Your task to perform on an android device: What's the weather going to be this weekend? Image 0: 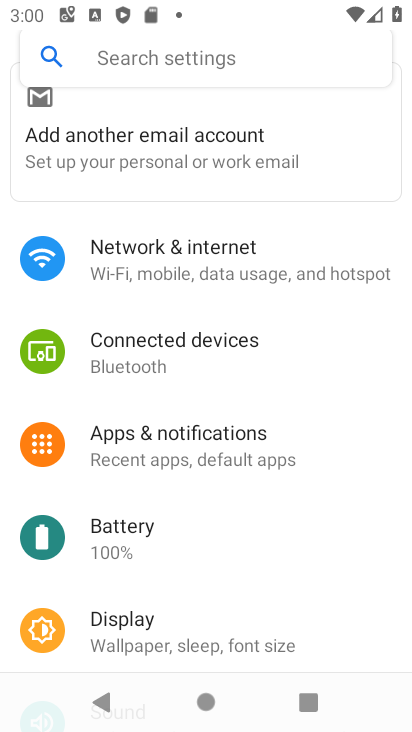
Step 0: press home button
Your task to perform on an android device: What's the weather going to be this weekend? Image 1: 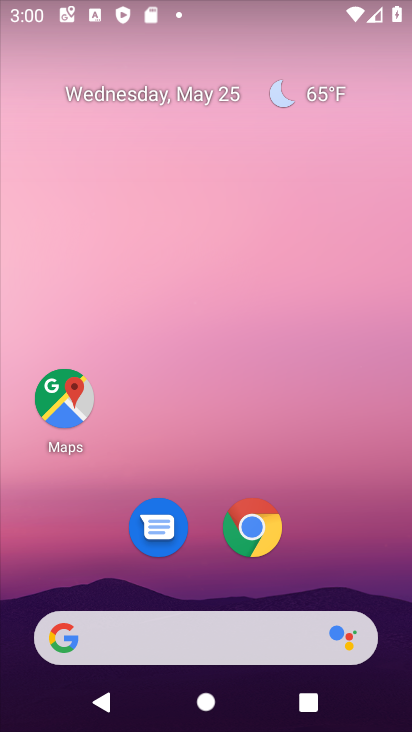
Step 1: click (75, 135)
Your task to perform on an android device: What's the weather going to be this weekend? Image 2: 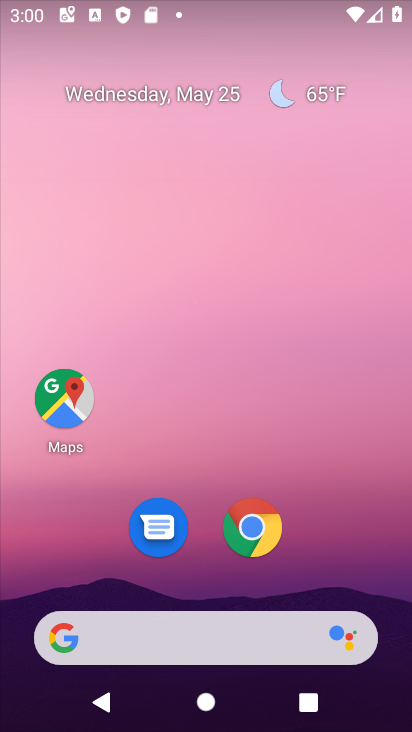
Step 2: drag from (49, 143) to (406, 181)
Your task to perform on an android device: What's the weather going to be this weekend? Image 3: 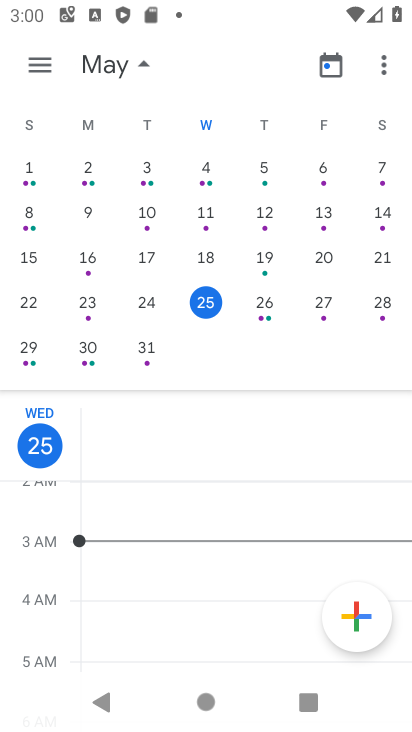
Step 3: press home button
Your task to perform on an android device: What's the weather going to be this weekend? Image 4: 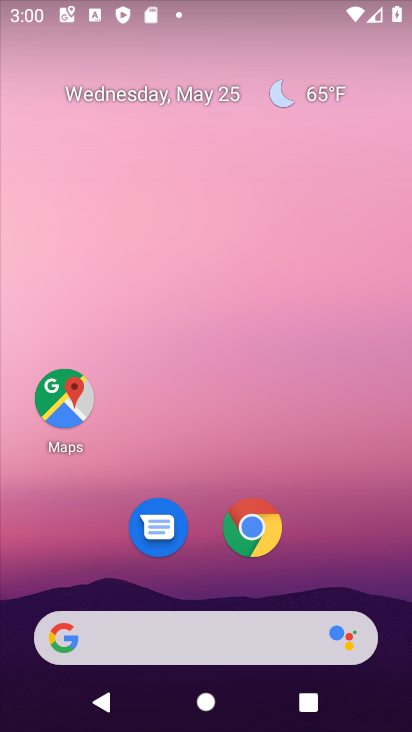
Step 4: drag from (87, 208) to (411, 212)
Your task to perform on an android device: What's the weather going to be this weekend? Image 5: 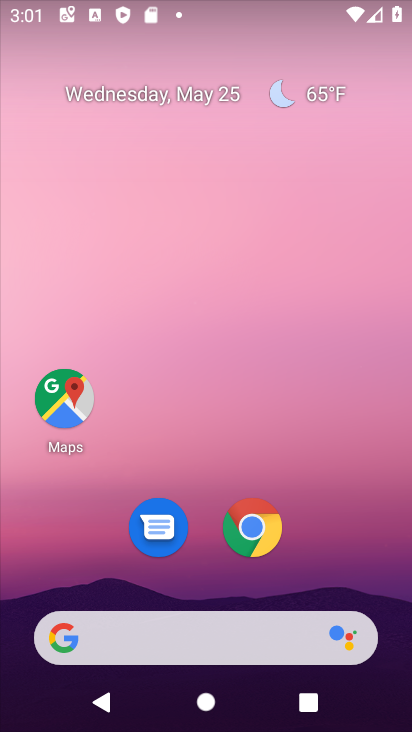
Step 5: drag from (21, 154) to (401, 202)
Your task to perform on an android device: What's the weather going to be this weekend? Image 6: 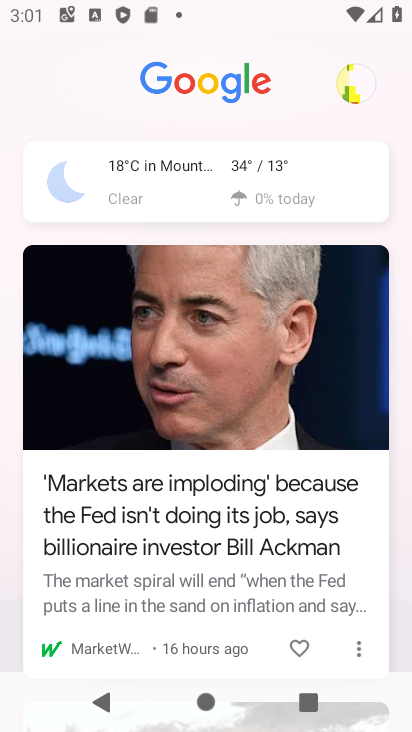
Step 6: click (112, 184)
Your task to perform on an android device: What's the weather going to be this weekend? Image 7: 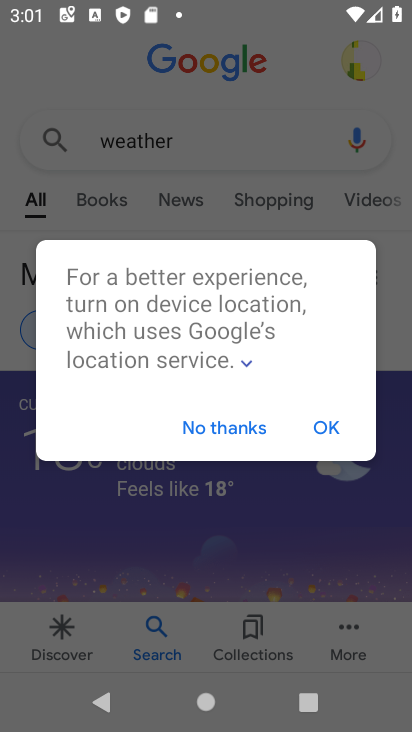
Step 7: click (241, 439)
Your task to perform on an android device: What's the weather going to be this weekend? Image 8: 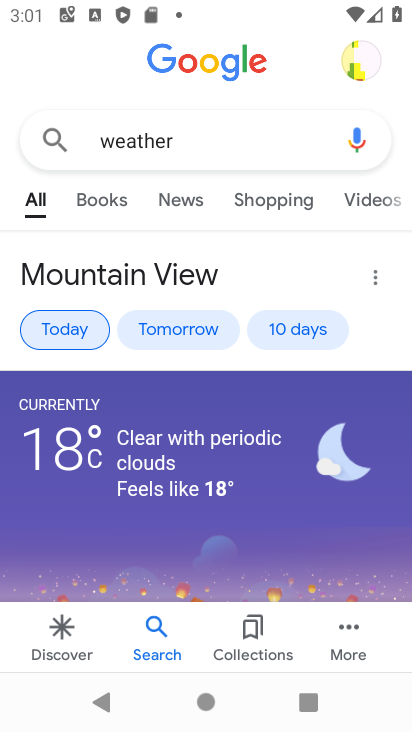
Step 8: click (280, 322)
Your task to perform on an android device: What's the weather going to be this weekend? Image 9: 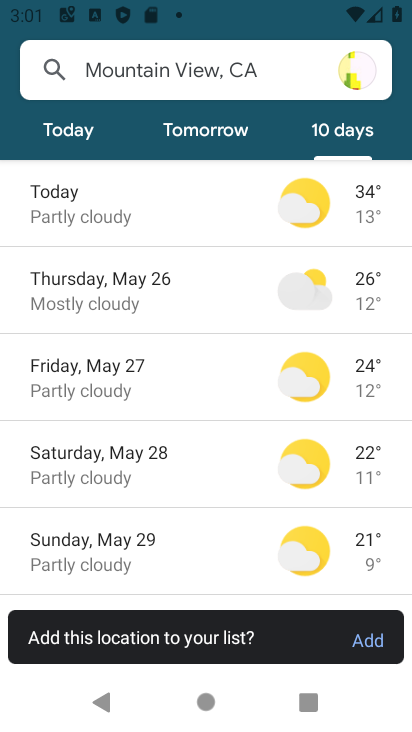
Step 9: task complete